Your task to perform on an android device: Go to accessibility settings Image 0: 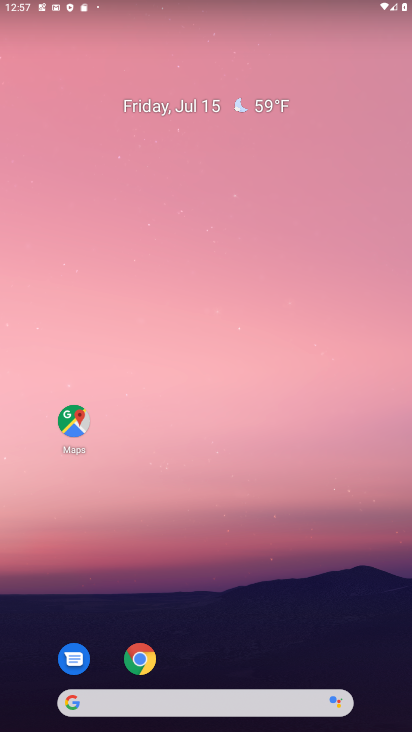
Step 0: drag from (207, 709) to (226, 200)
Your task to perform on an android device: Go to accessibility settings Image 1: 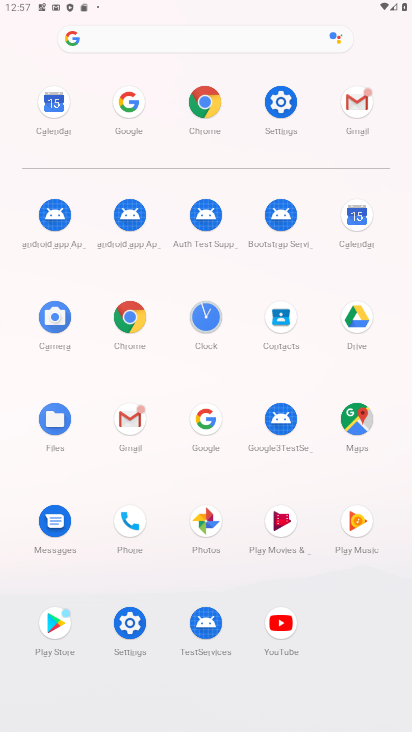
Step 1: click (279, 114)
Your task to perform on an android device: Go to accessibility settings Image 2: 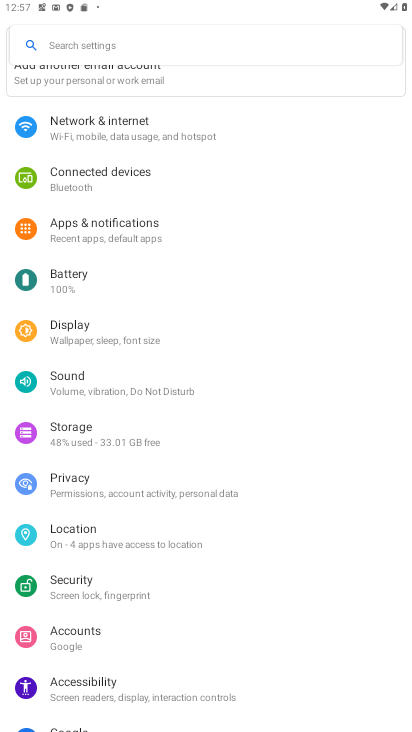
Step 2: click (75, 682)
Your task to perform on an android device: Go to accessibility settings Image 3: 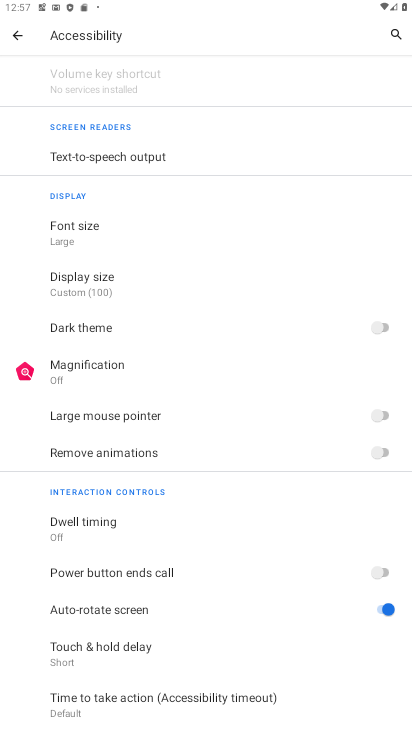
Step 3: task complete